Your task to perform on an android device: Open Reddit.com Image 0: 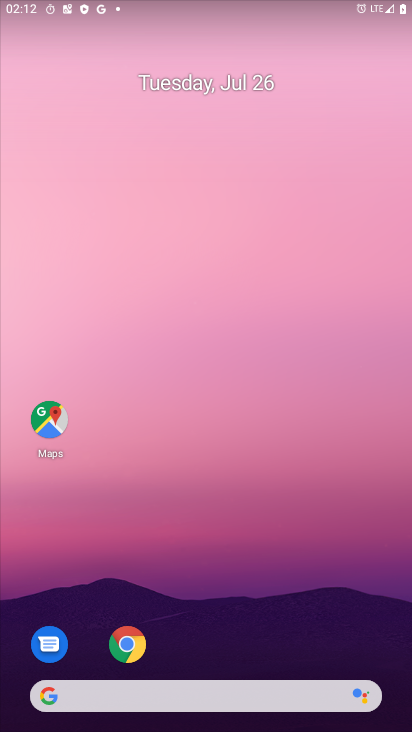
Step 0: click (175, 694)
Your task to perform on an android device: Open Reddit.com Image 1: 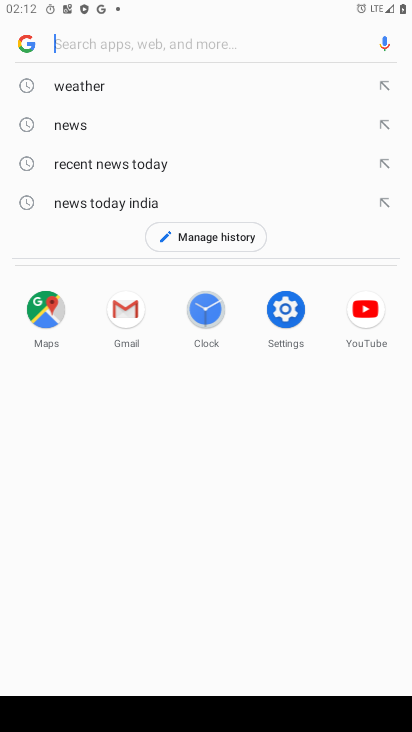
Step 1: type "reddit.com"
Your task to perform on an android device: Open Reddit.com Image 2: 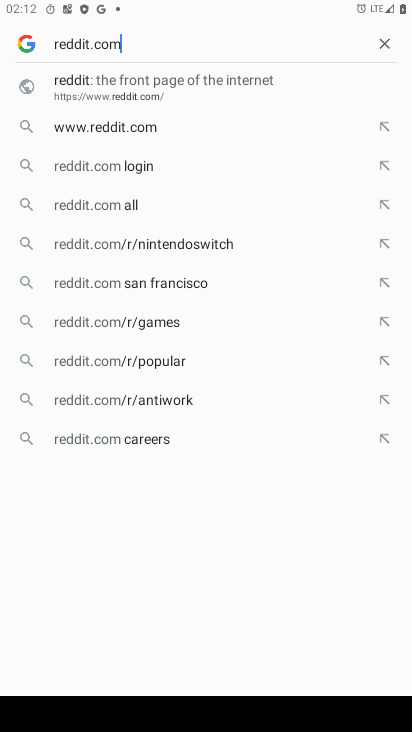
Step 2: click (112, 125)
Your task to perform on an android device: Open Reddit.com Image 3: 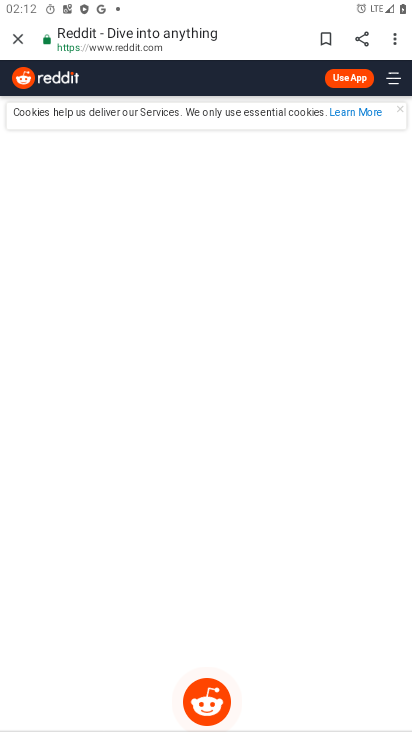
Step 3: task complete